Your task to perform on an android device: Show me the alarms in the clock app Image 0: 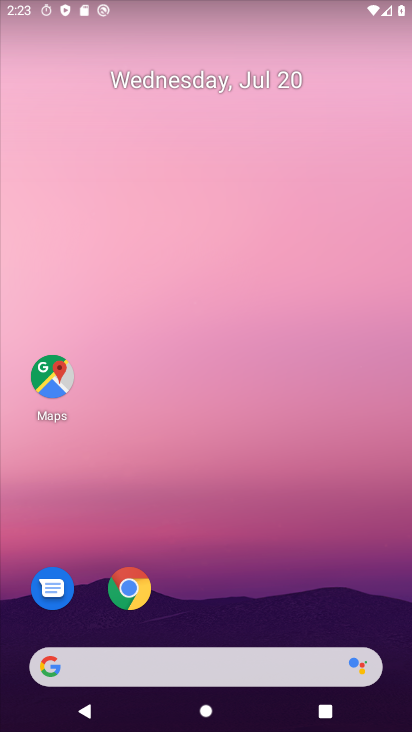
Step 0: click (178, 183)
Your task to perform on an android device: Show me the alarms in the clock app Image 1: 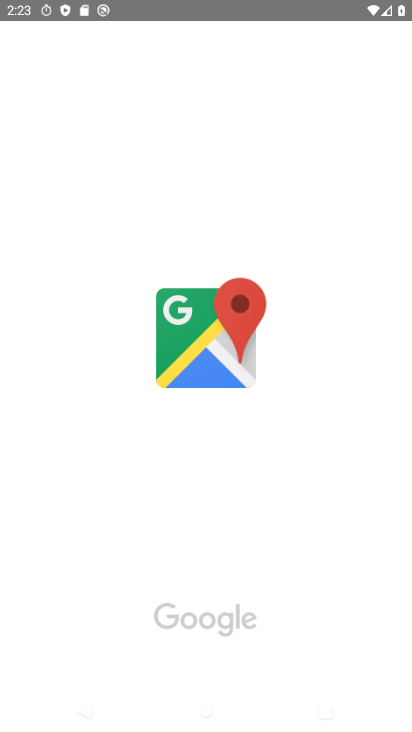
Step 1: press home button
Your task to perform on an android device: Show me the alarms in the clock app Image 2: 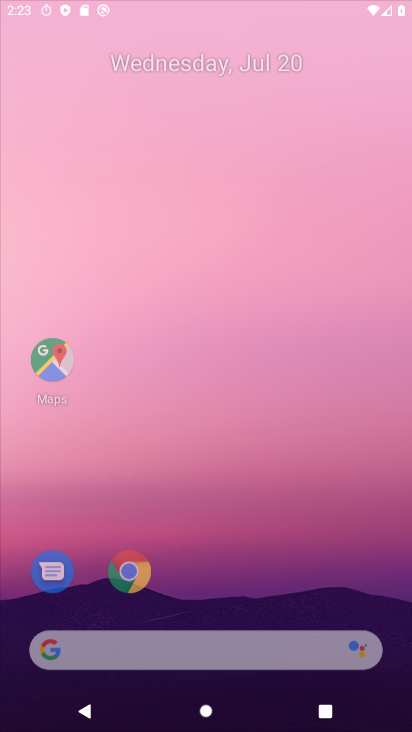
Step 2: drag from (174, 637) to (230, 98)
Your task to perform on an android device: Show me the alarms in the clock app Image 3: 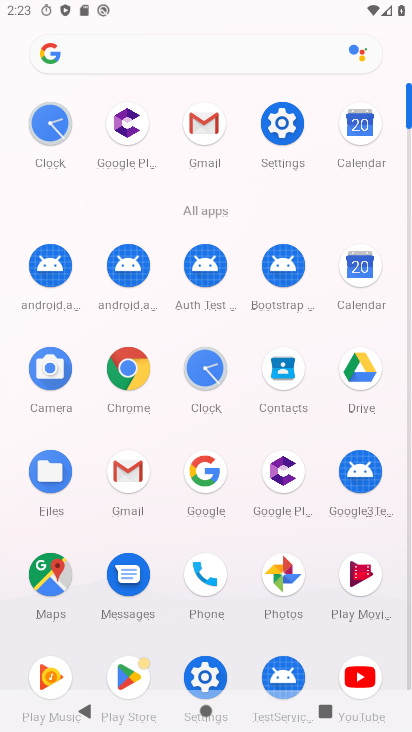
Step 3: click (198, 356)
Your task to perform on an android device: Show me the alarms in the clock app Image 4: 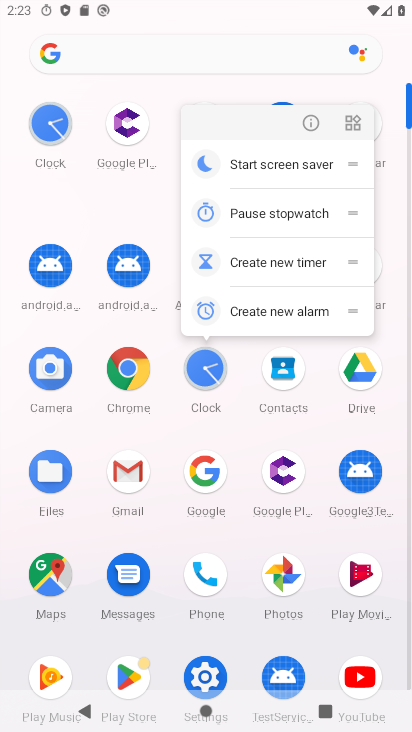
Step 4: click (304, 117)
Your task to perform on an android device: Show me the alarms in the clock app Image 5: 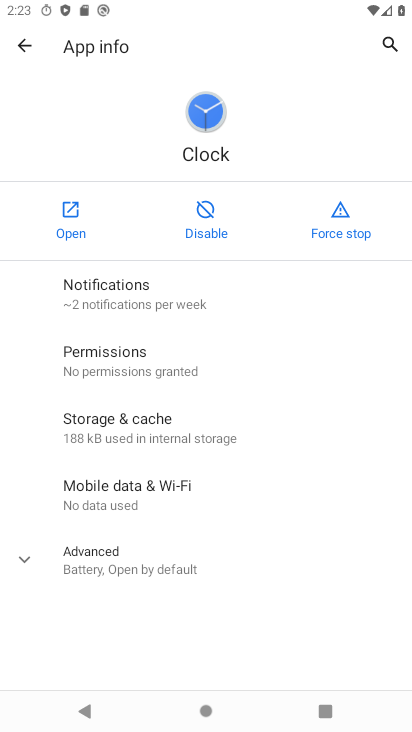
Step 5: click (74, 217)
Your task to perform on an android device: Show me the alarms in the clock app Image 6: 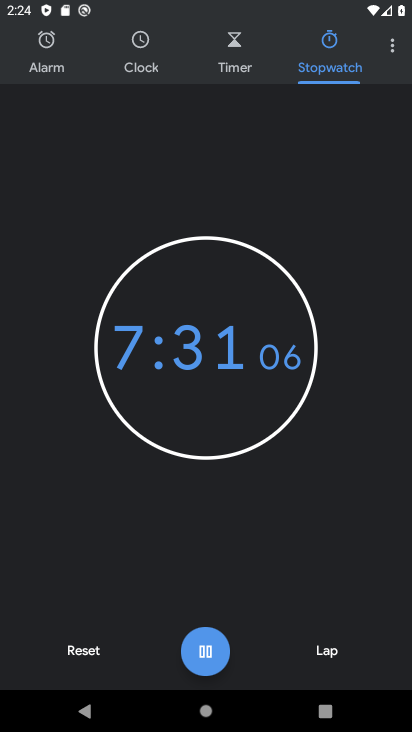
Step 6: click (46, 45)
Your task to perform on an android device: Show me the alarms in the clock app Image 7: 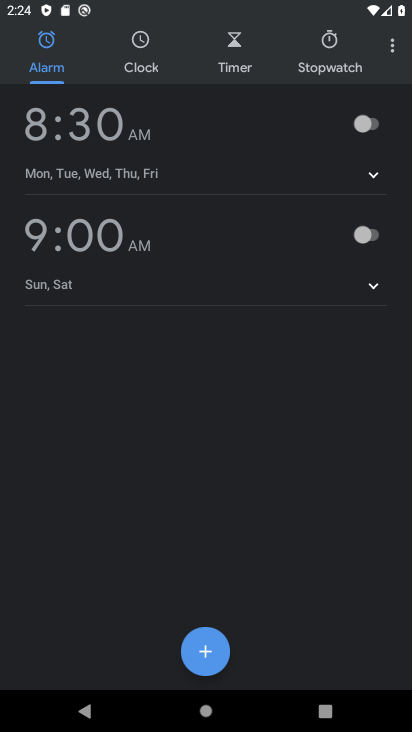
Step 7: task complete